Your task to perform on an android device: see sites visited before in the chrome app Image 0: 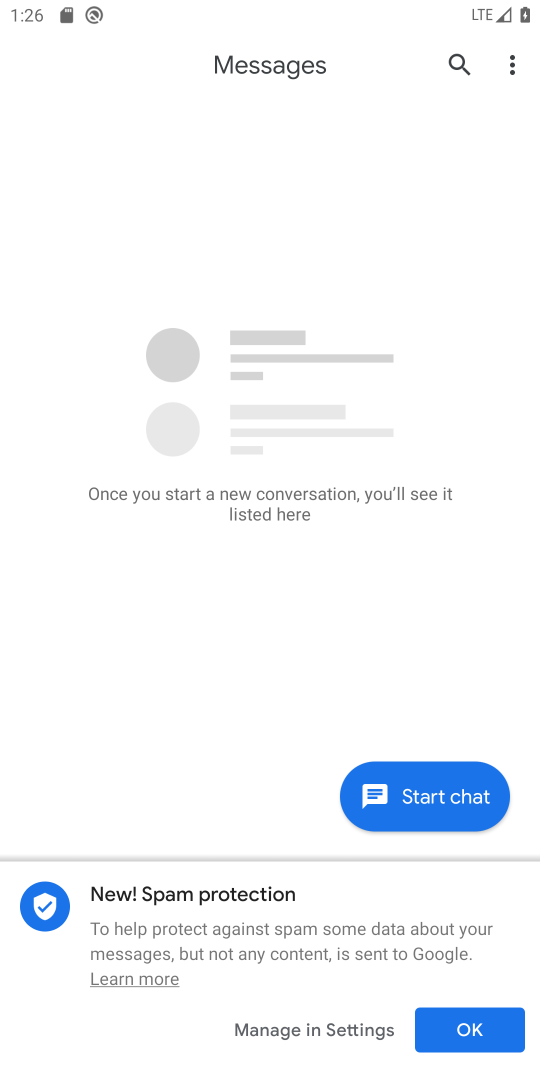
Step 0: press home button
Your task to perform on an android device: see sites visited before in the chrome app Image 1: 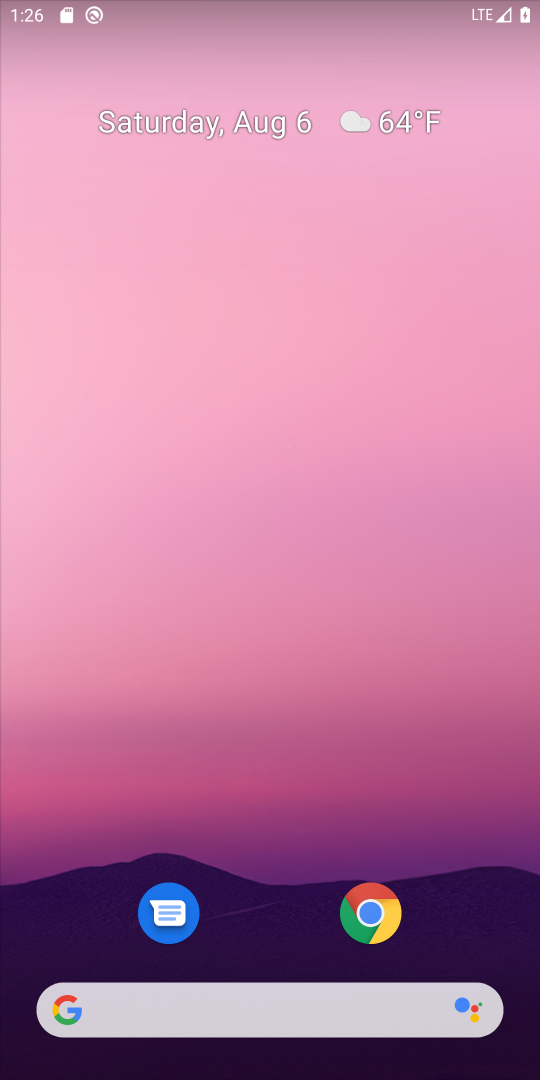
Step 1: drag from (457, 926) to (447, 288)
Your task to perform on an android device: see sites visited before in the chrome app Image 2: 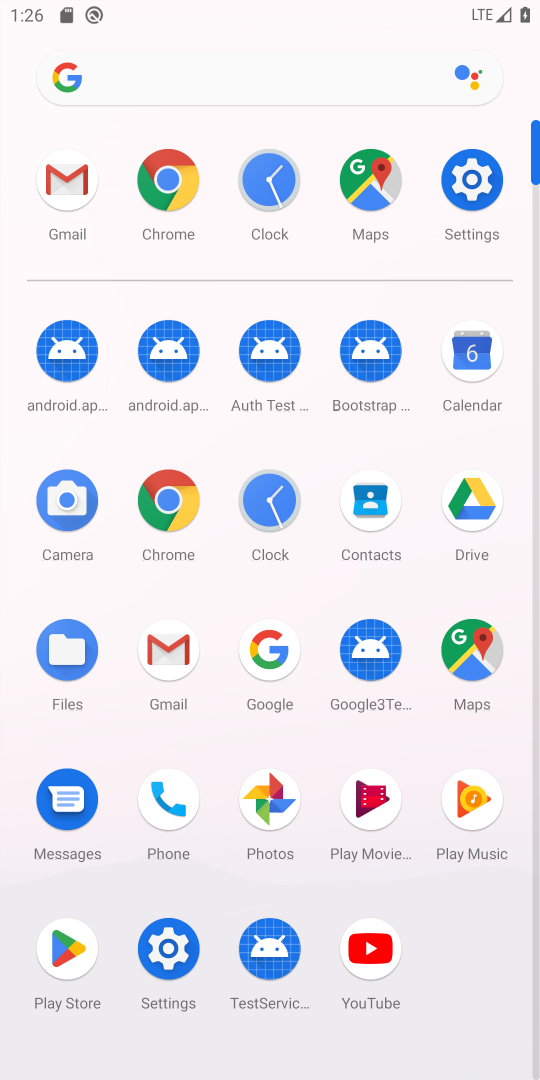
Step 2: click (160, 514)
Your task to perform on an android device: see sites visited before in the chrome app Image 3: 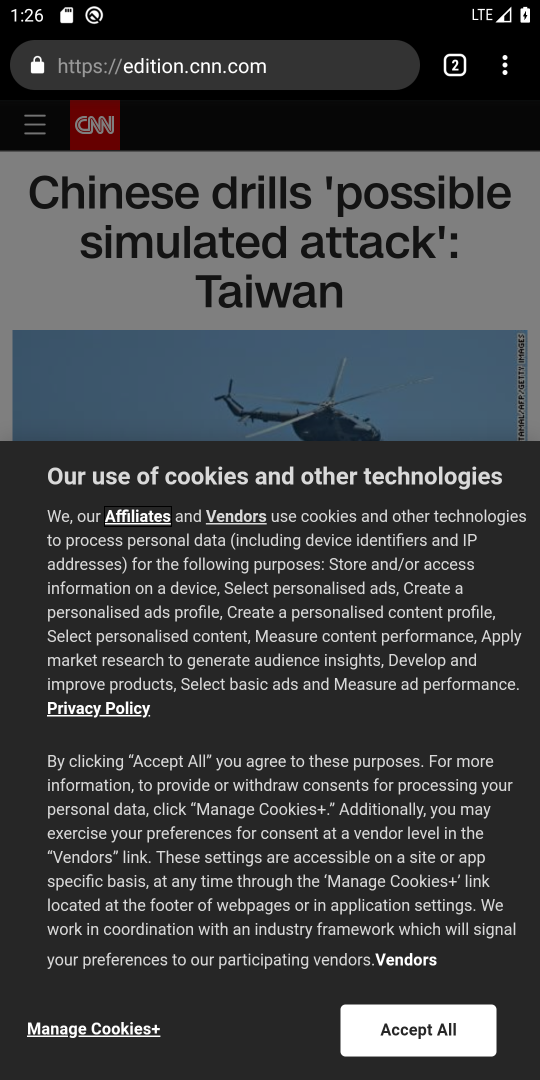
Step 3: click (501, 72)
Your task to perform on an android device: see sites visited before in the chrome app Image 4: 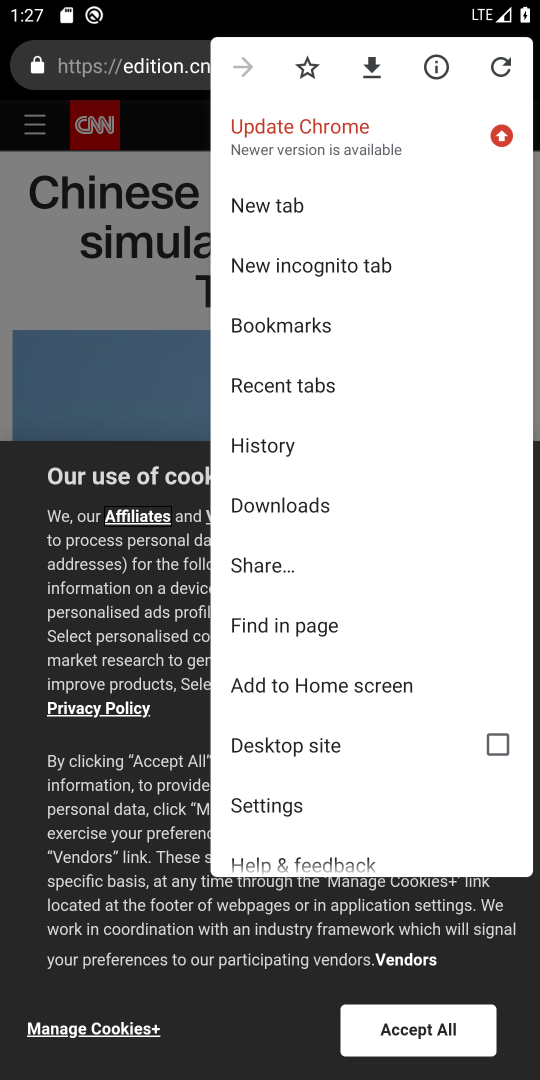
Step 4: click (312, 448)
Your task to perform on an android device: see sites visited before in the chrome app Image 5: 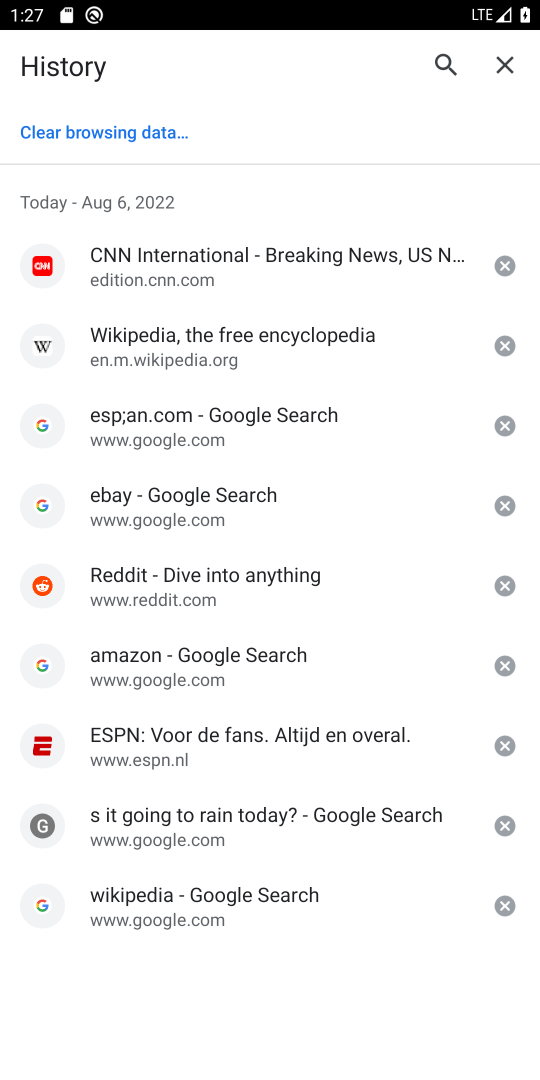
Step 5: task complete